Your task to perform on an android device: Open settings Image 0: 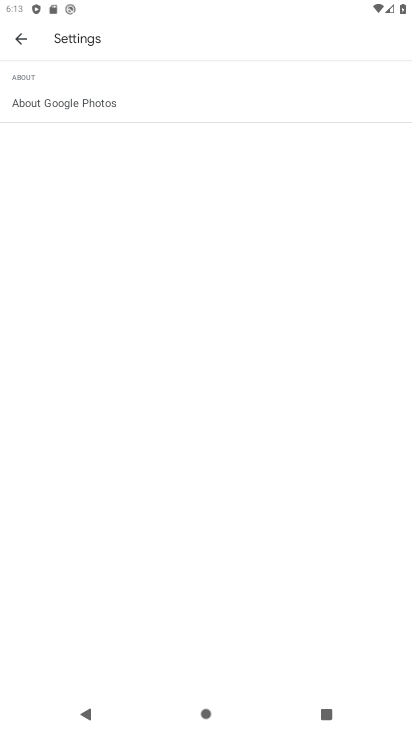
Step 0: press home button
Your task to perform on an android device: Open settings Image 1: 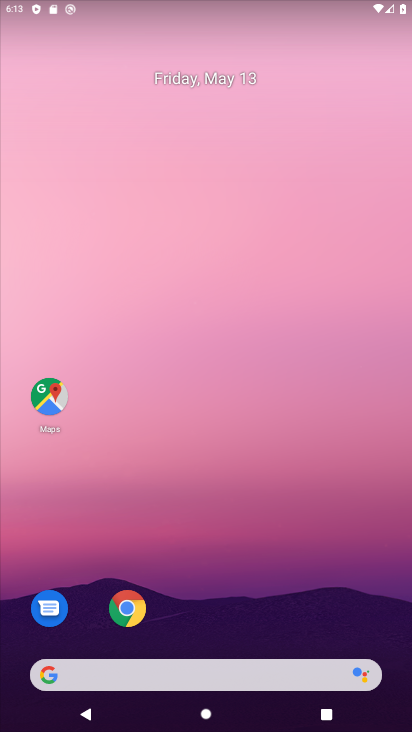
Step 1: drag from (200, 544) to (234, 27)
Your task to perform on an android device: Open settings Image 2: 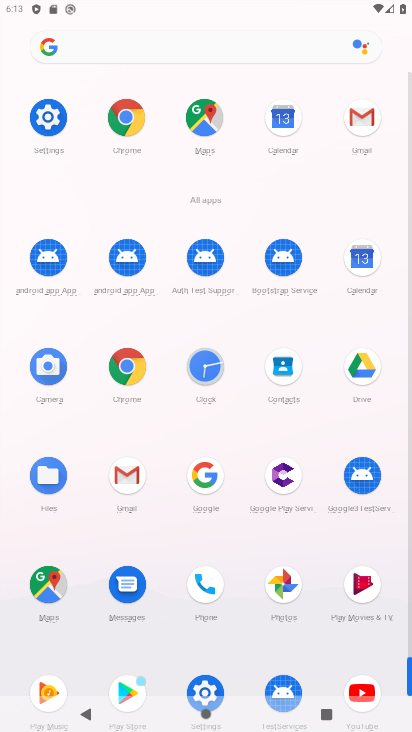
Step 2: click (53, 140)
Your task to perform on an android device: Open settings Image 3: 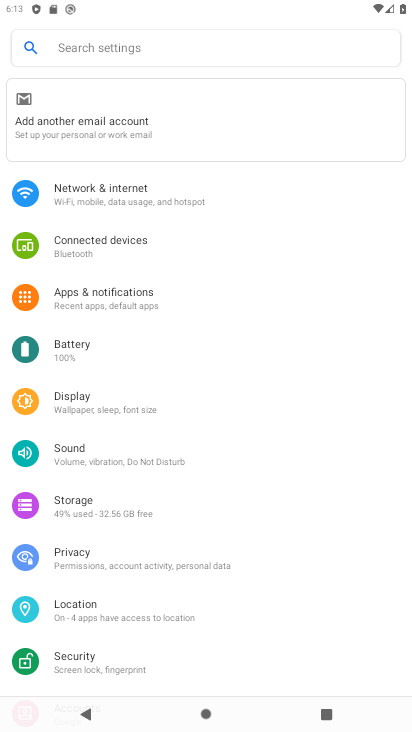
Step 3: task complete